Your task to perform on an android device: View the shopping cart on costco.com. Add "amazon basics triple a" to the cart on costco.com, then select checkout. Image 0: 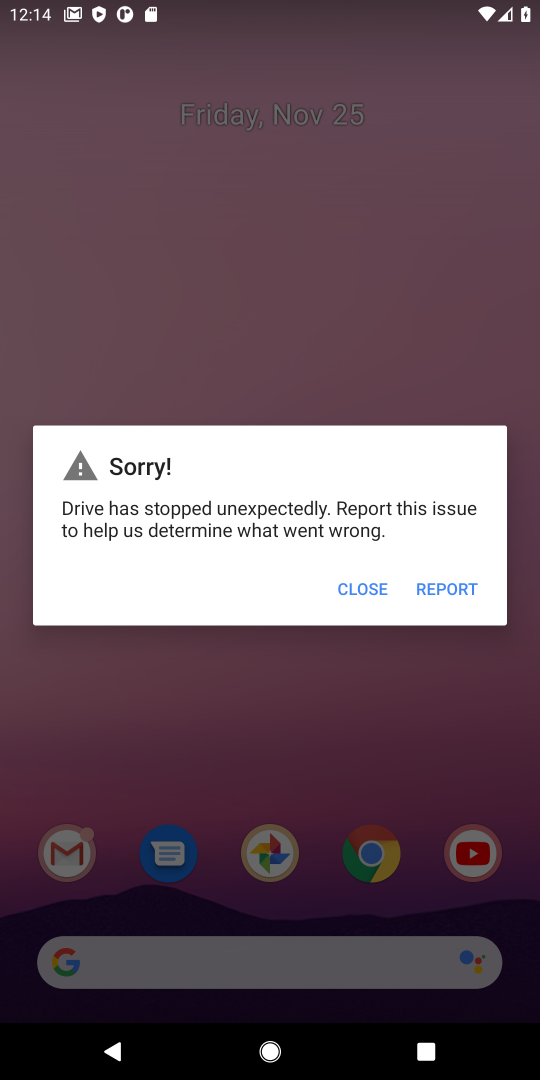
Step 0: click (360, 575)
Your task to perform on an android device: View the shopping cart on costco.com. Add "amazon basics triple a" to the cart on costco.com, then select checkout. Image 1: 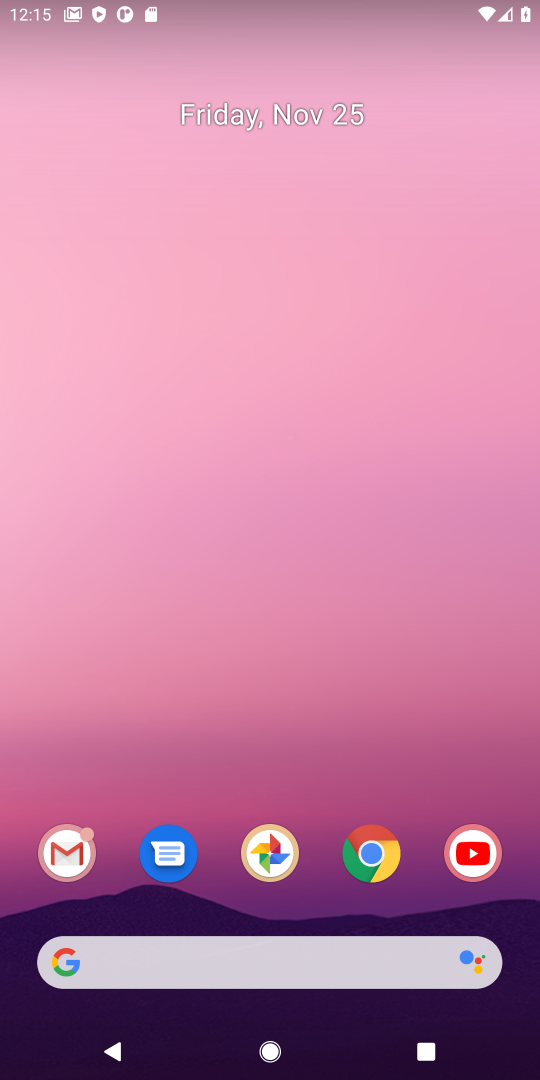
Step 1: click (173, 972)
Your task to perform on an android device: View the shopping cart on costco.com. Add "amazon basics triple a" to the cart on costco.com, then select checkout. Image 2: 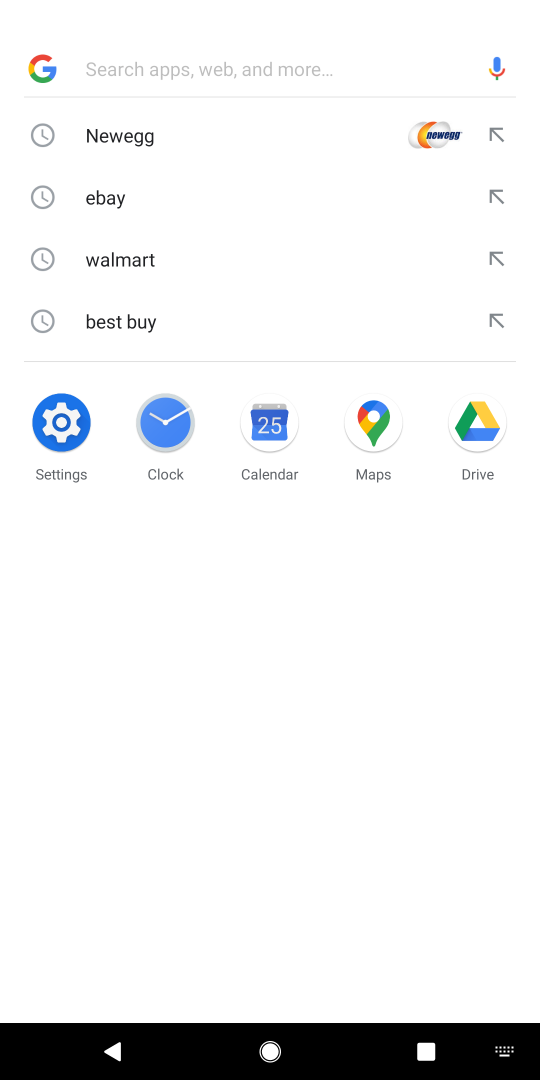
Step 2: type "costco.com"
Your task to perform on an android device: View the shopping cart on costco.com. Add "amazon basics triple a" to the cart on costco.com, then select checkout. Image 3: 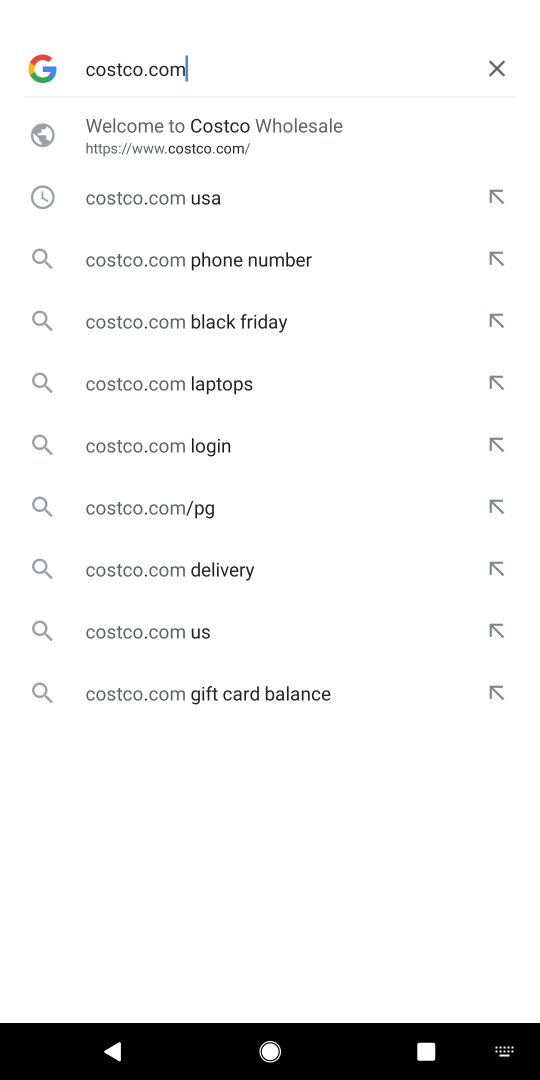
Step 3: click (169, 153)
Your task to perform on an android device: View the shopping cart on costco.com. Add "amazon basics triple a" to the cart on costco.com, then select checkout. Image 4: 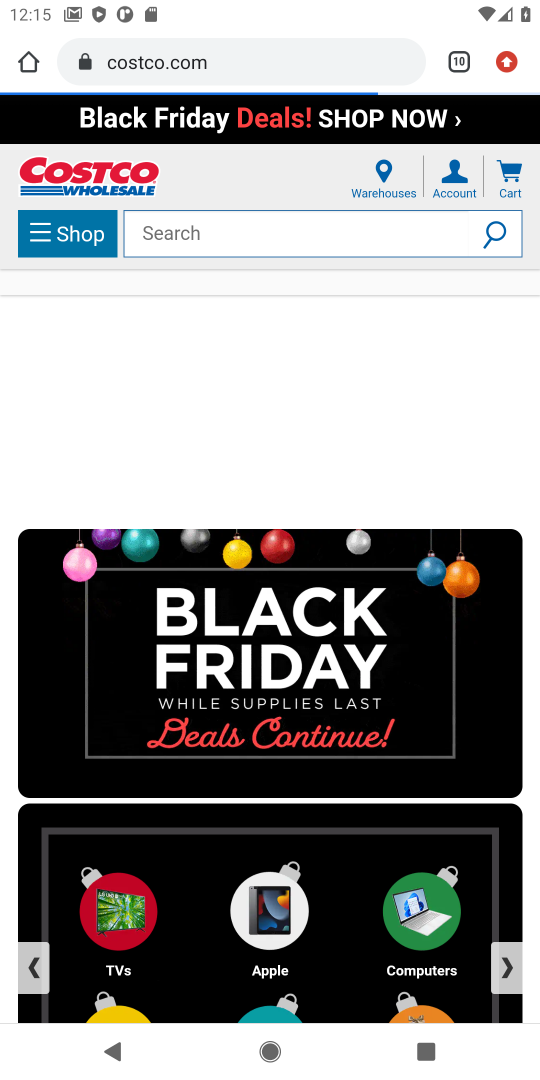
Step 4: task complete